Your task to perform on an android device: Do I have any events tomorrow? Image 0: 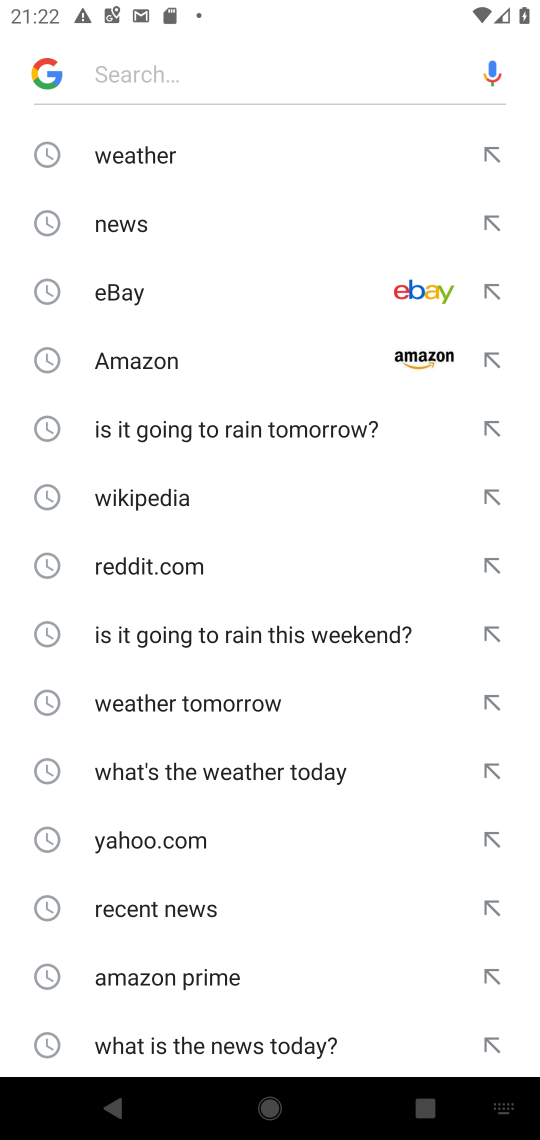
Step 0: press home button
Your task to perform on an android device: Do I have any events tomorrow? Image 1: 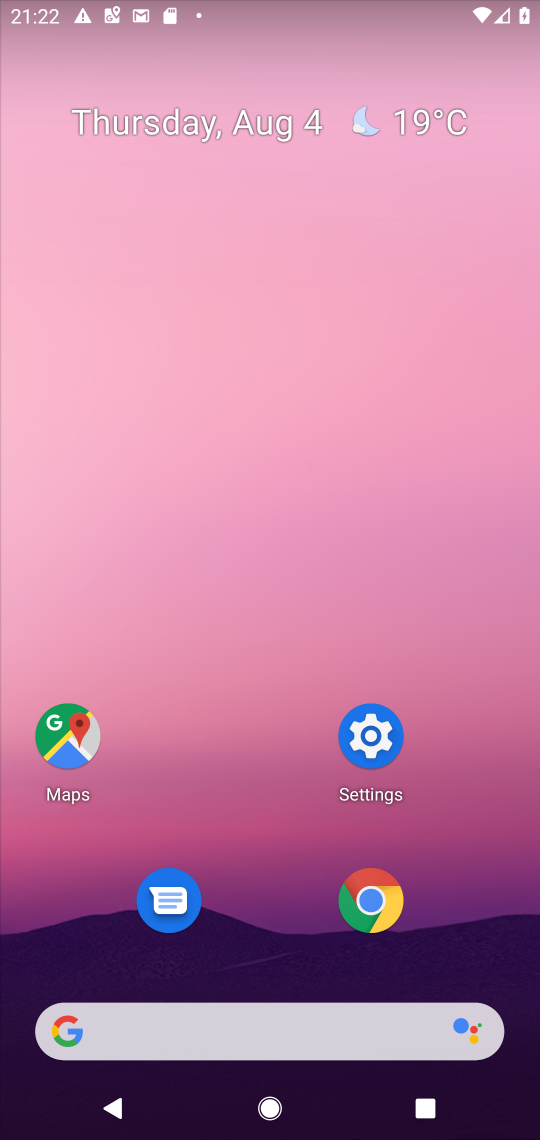
Step 1: drag from (211, 951) to (413, 54)
Your task to perform on an android device: Do I have any events tomorrow? Image 2: 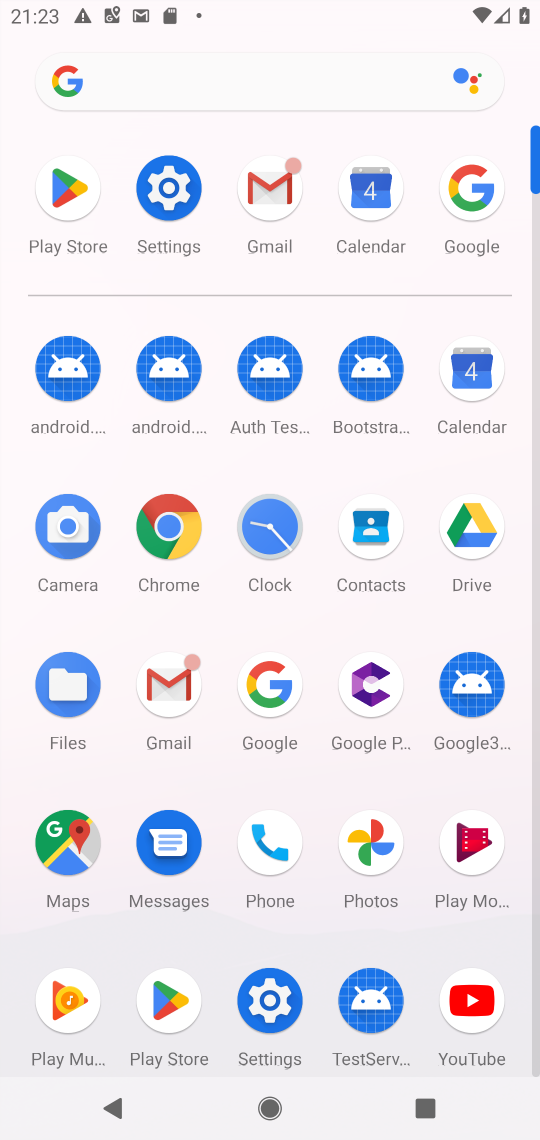
Step 2: click (482, 381)
Your task to perform on an android device: Do I have any events tomorrow? Image 3: 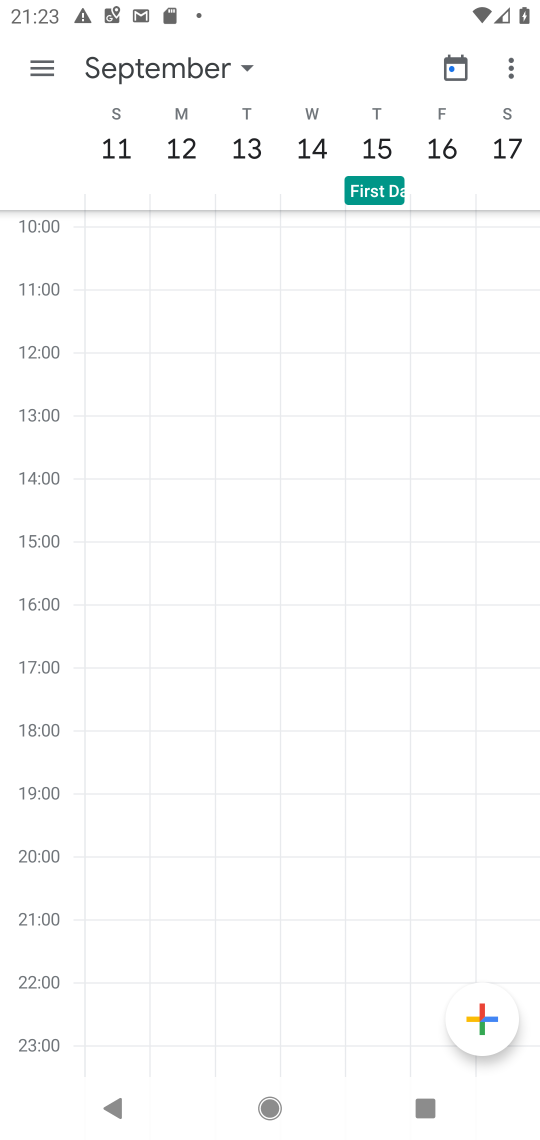
Step 3: click (145, 60)
Your task to perform on an android device: Do I have any events tomorrow? Image 4: 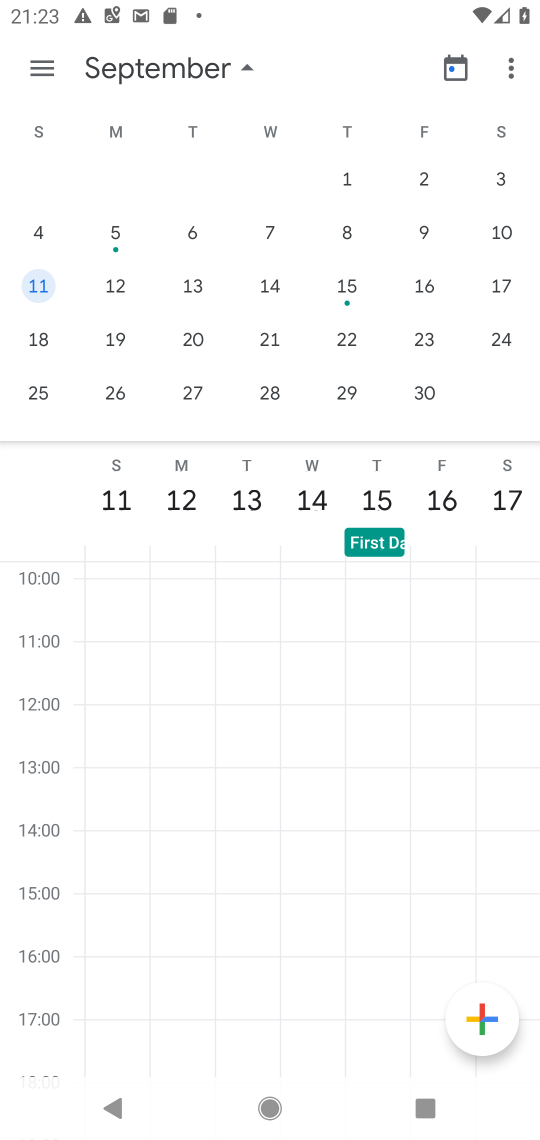
Step 4: drag from (87, 336) to (528, 385)
Your task to perform on an android device: Do I have any events tomorrow? Image 5: 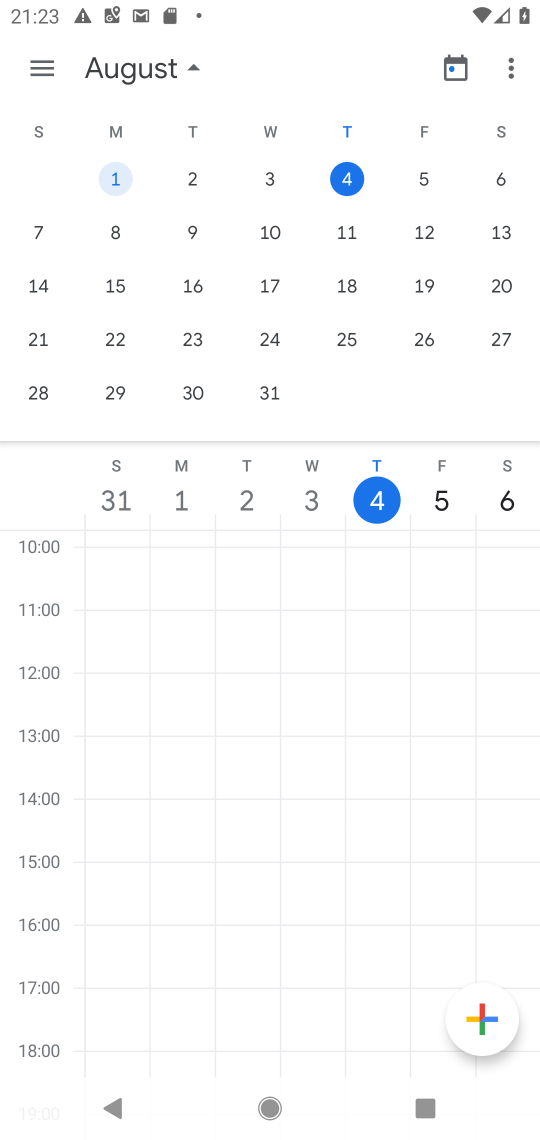
Step 5: click (419, 169)
Your task to perform on an android device: Do I have any events tomorrow? Image 6: 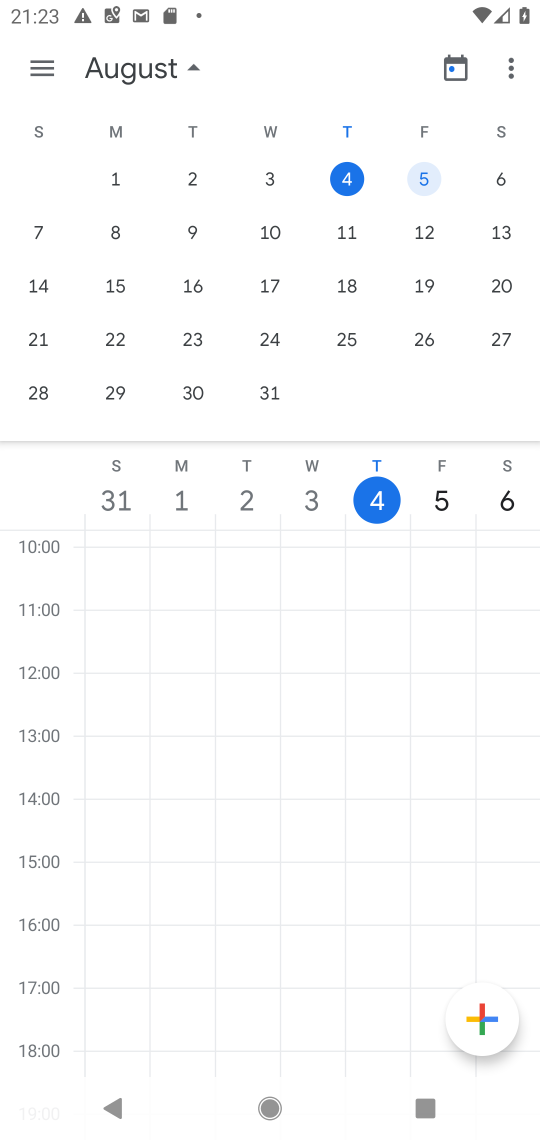
Step 6: click (26, 67)
Your task to perform on an android device: Do I have any events tomorrow? Image 7: 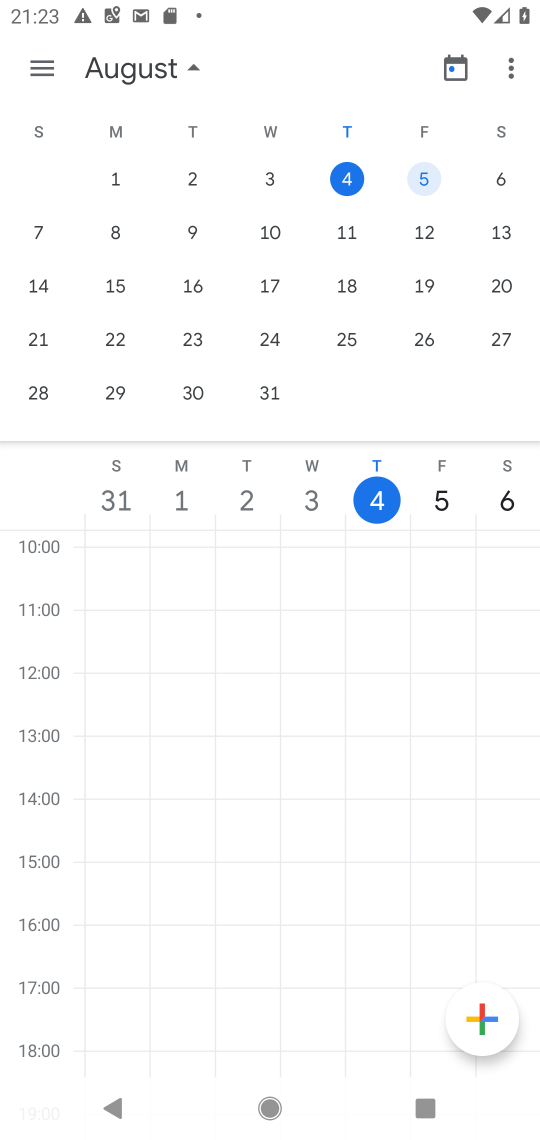
Step 7: click (43, 70)
Your task to perform on an android device: Do I have any events tomorrow? Image 8: 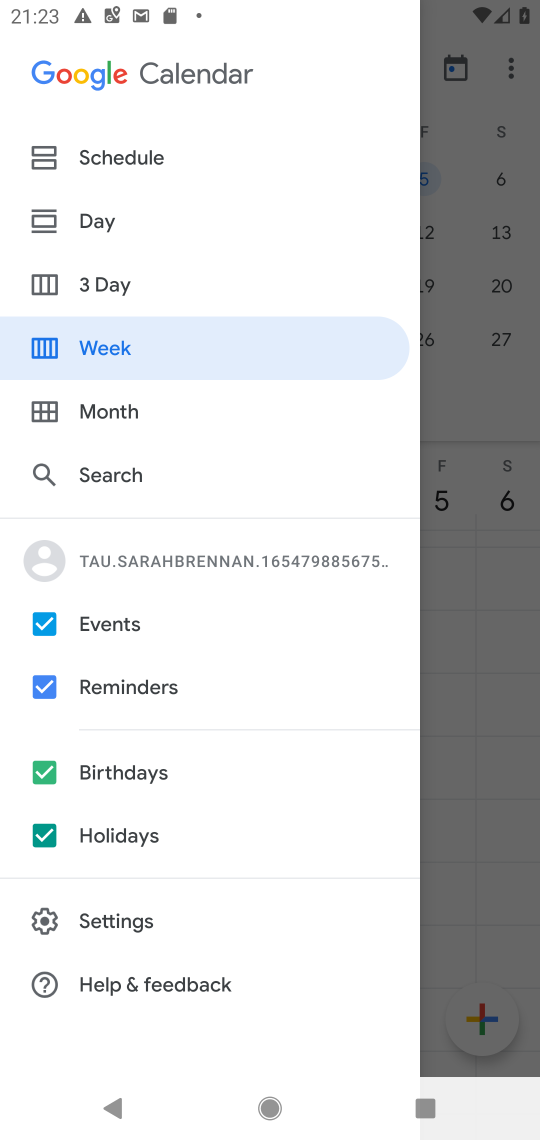
Step 8: click (98, 216)
Your task to perform on an android device: Do I have any events tomorrow? Image 9: 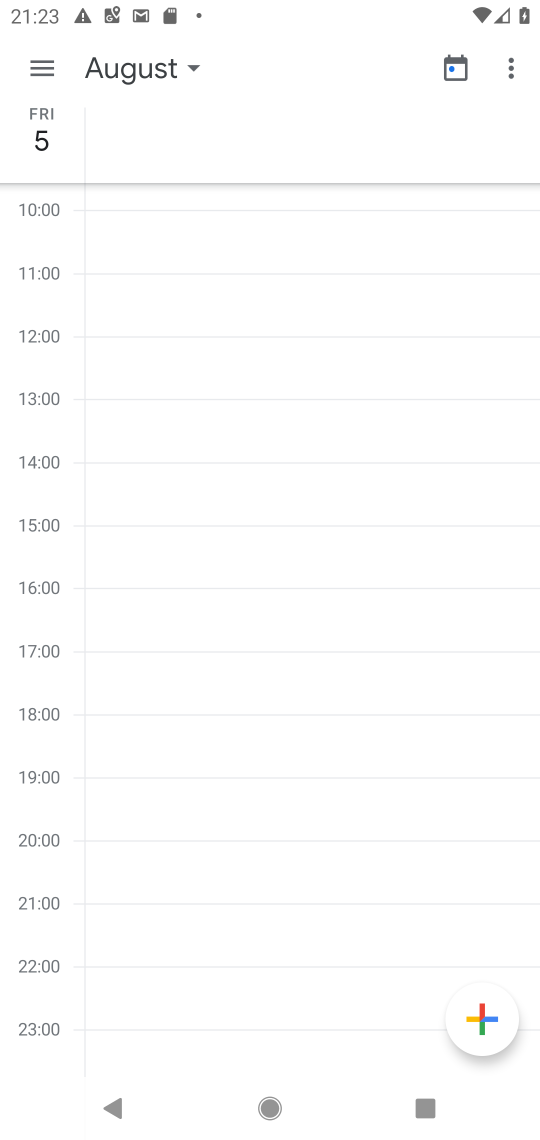
Step 9: click (53, 62)
Your task to perform on an android device: Do I have any events tomorrow? Image 10: 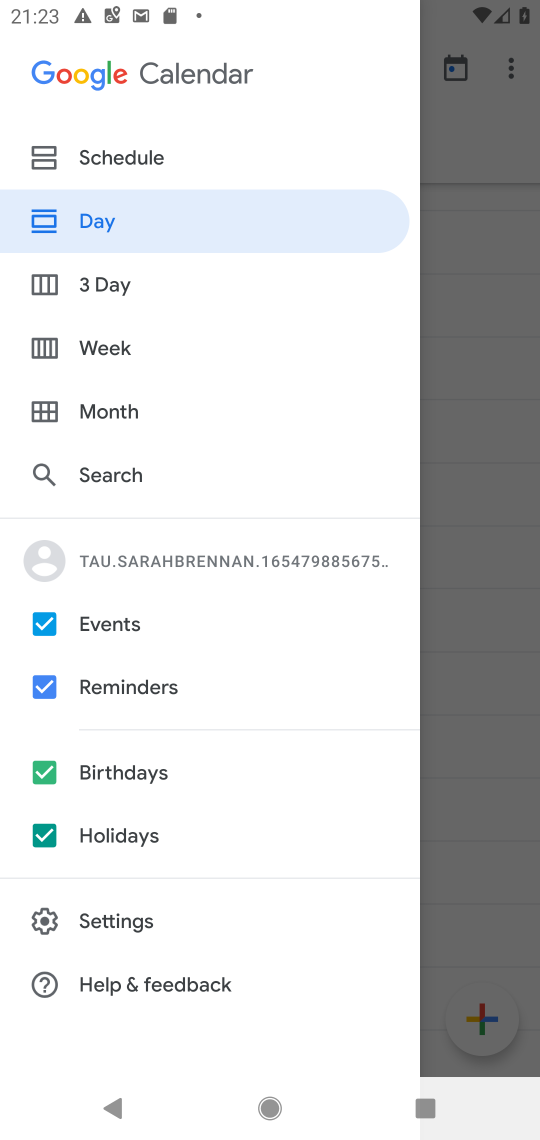
Step 10: click (121, 161)
Your task to perform on an android device: Do I have any events tomorrow? Image 11: 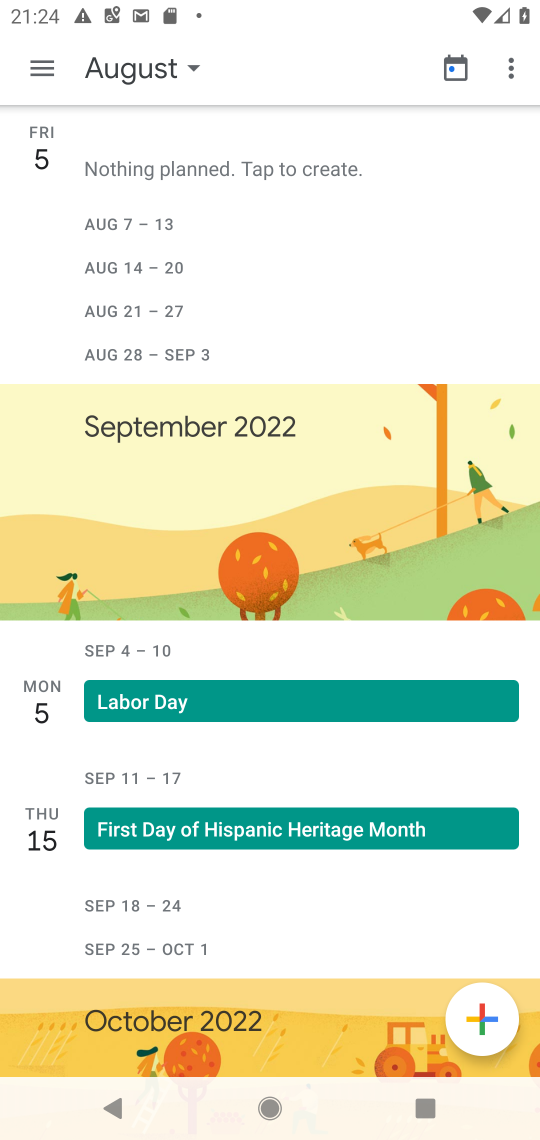
Step 11: task complete